Your task to perform on an android device: set the stopwatch Image 0: 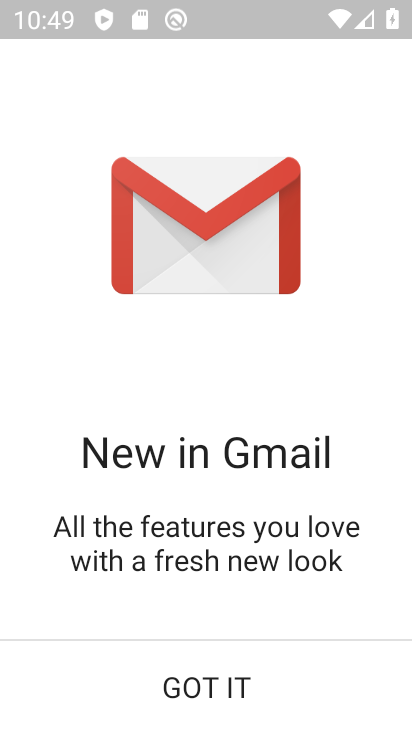
Step 0: press home button
Your task to perform on an android device: set the stopwatch Image 1: 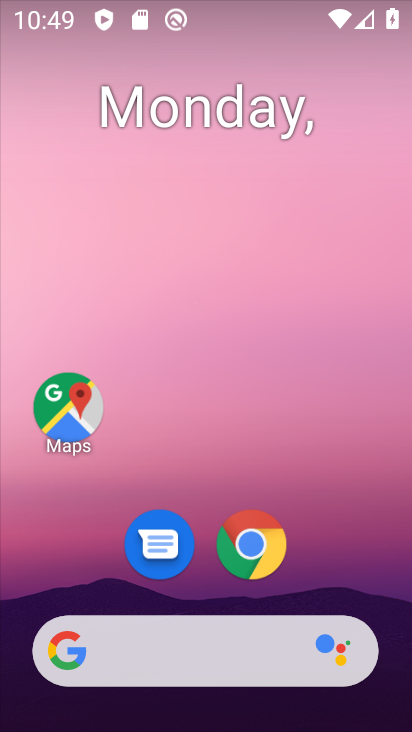
Step 1: drag from (56, 604) to (172, 109)
Your task to perform on an android device: set the stopwatch Image 2: 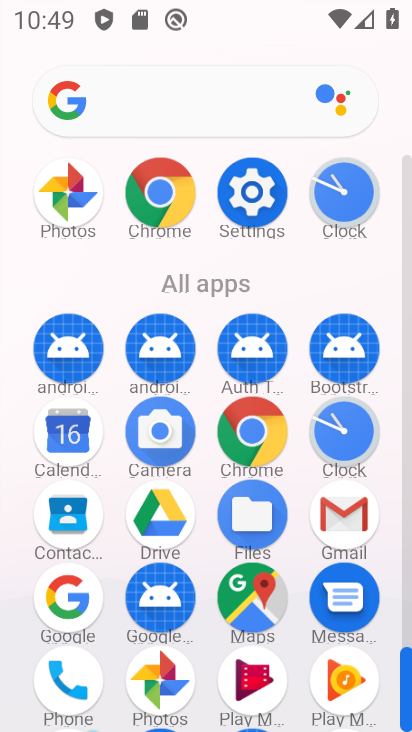
Step 2: click (335, 442)
Your task to perform on an android device: set the stopwatch Image 3: 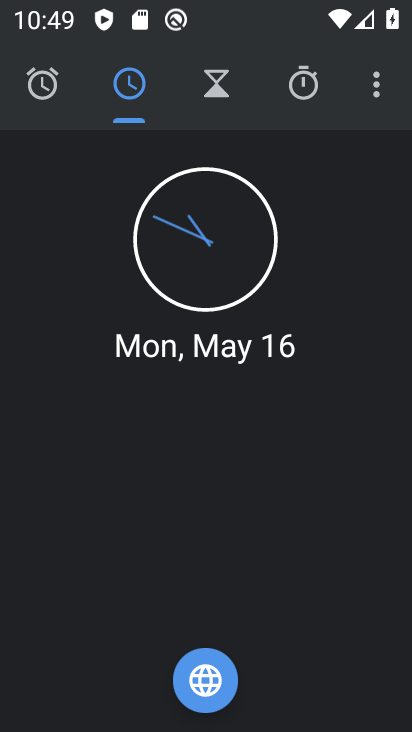
Step 3: click (306, 97)
Your task to perform on an android device: set the stopwatch Image 4: 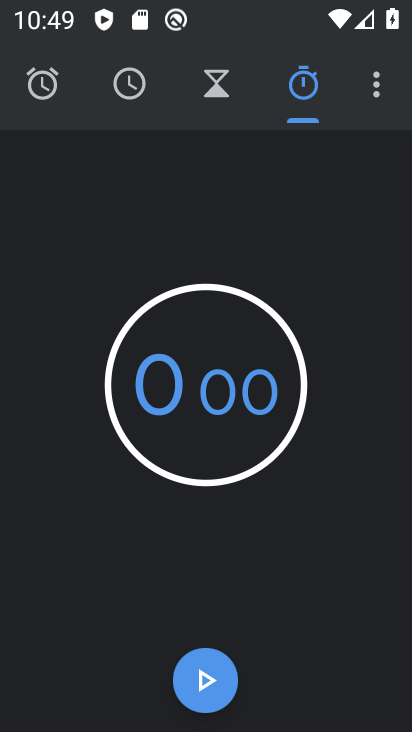
Step 4: click (220, 677)
Your task to perform on an android device: set the stopwatch Image 5: 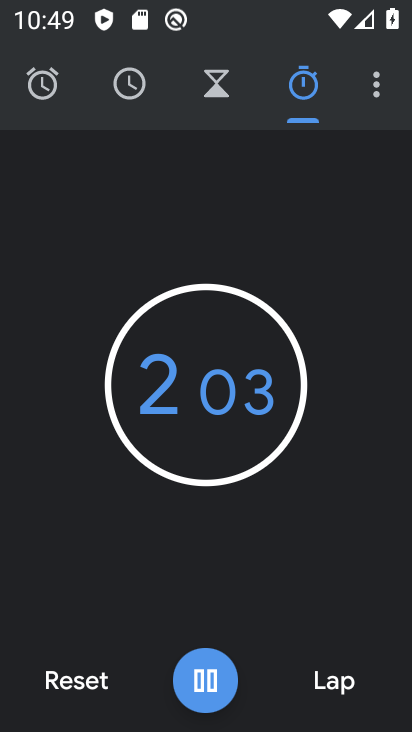
Step 5: task complete